Your task to perform on an android device: snooze an email in the gmail app Image 0: 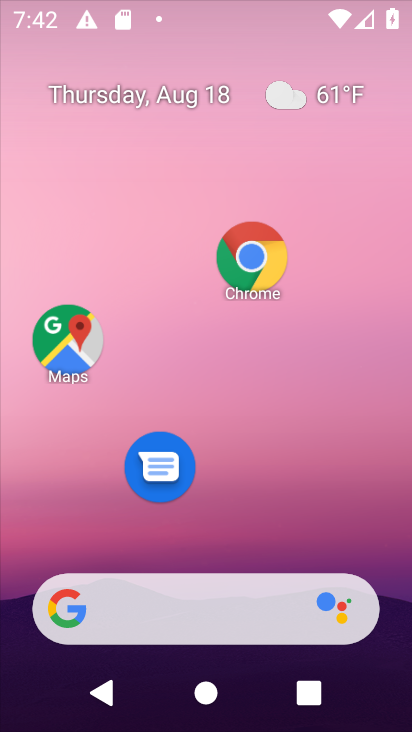
Step 0: drag from (306, 503) to (404, 61)
Your task to perform on an android device: snooze an email in the gmail app Image 1: 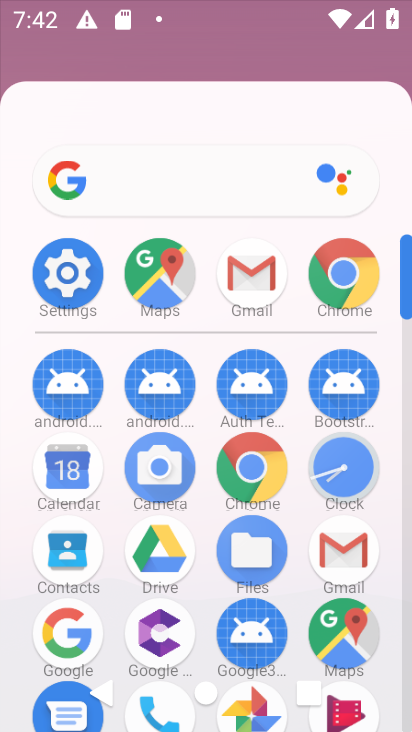
Step 1: task complete